Your task to perform on an android device: Open Chrome and go to settings Image 0: 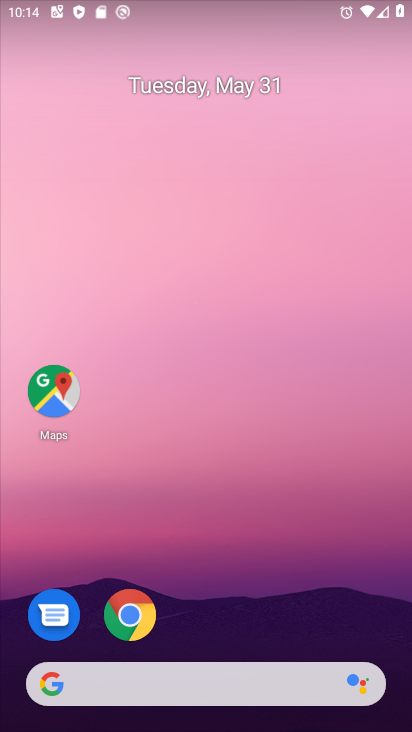
Step 0: drag from (278, 415) to (284, 104)
Your task to perform on an android device: Open Chrome and go to settings Image 1: 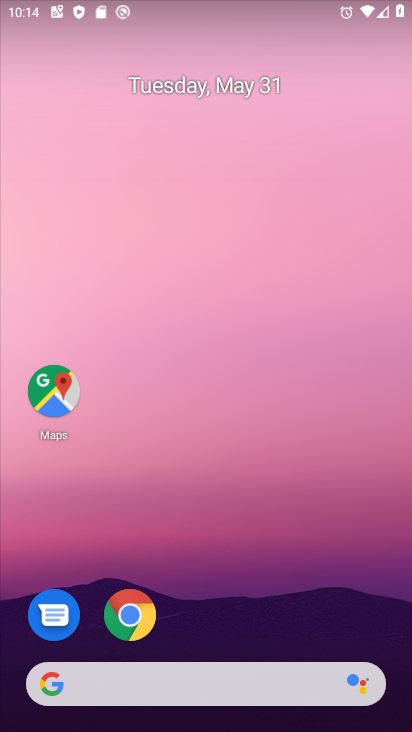
Step 1: drag from (260, 552) to (327, 132)
Your task to perform on an android device: Open Chrome and go to settings Image 2: 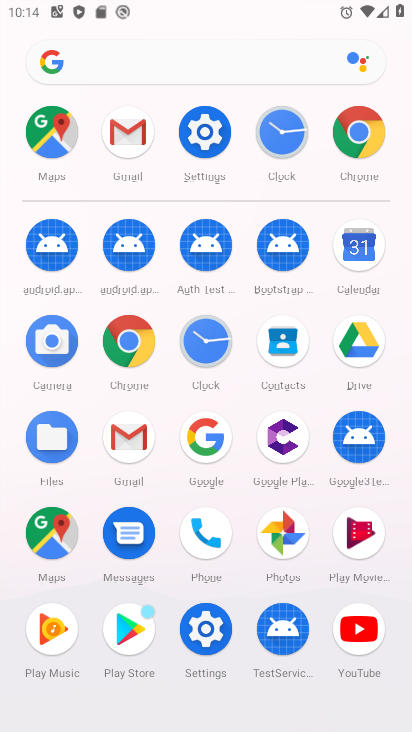
Step 2: click (371, 137)
Your task to perform on an android device: Open Chrome and go to settings Image 3: 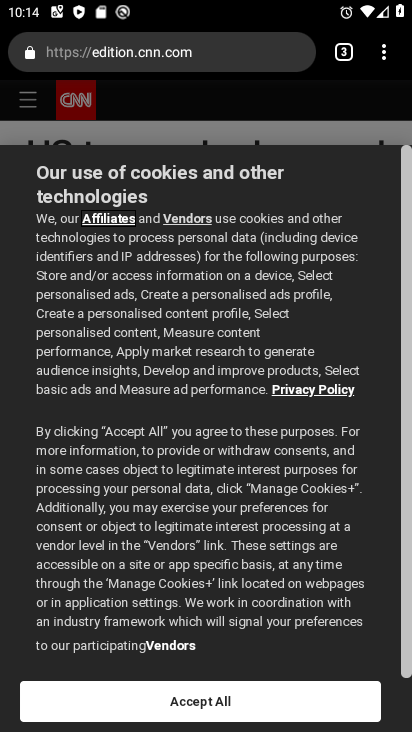
Step 3: task complete